Your task to perform on an android device: open a new tab in the chrome app Image 0: 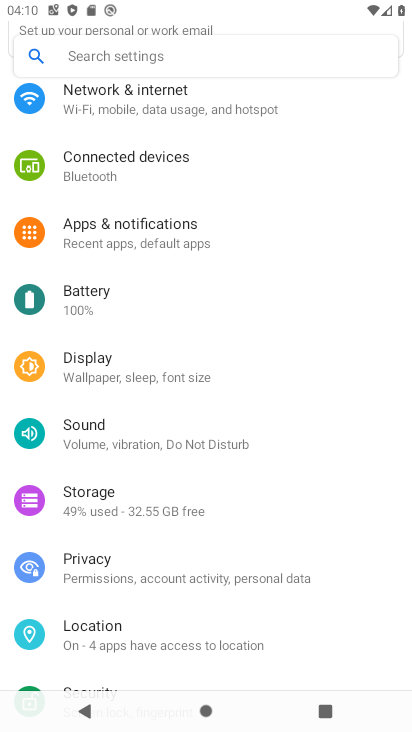
Step 0: press back button
Your task to perform on an android device: open a new tab in the chrome app Image 1: 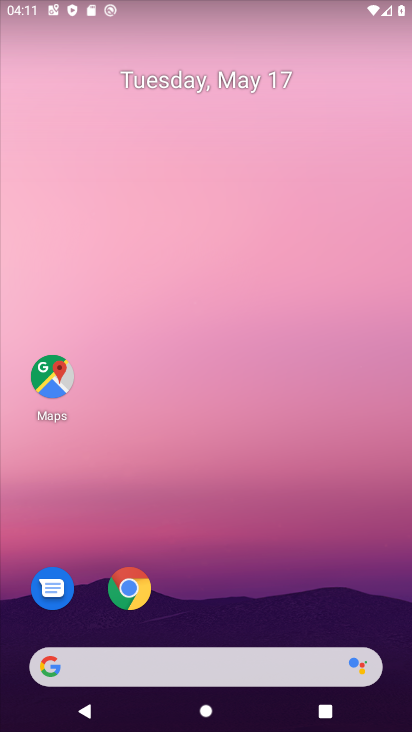
Step 1: click (131, 587)
Your task to perform on an android device: open a new tab in the chrome app Image 2: 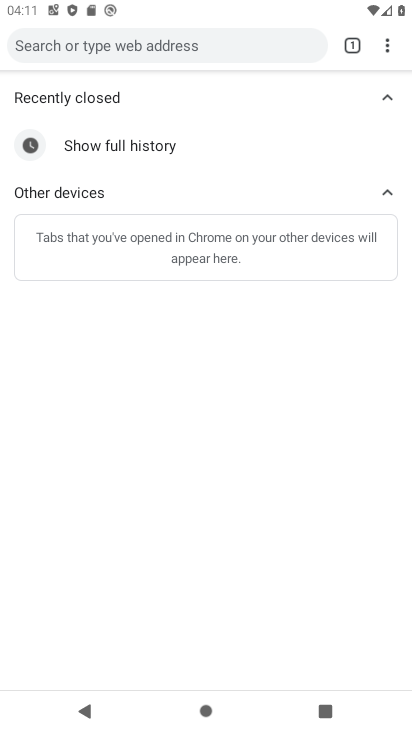
Step 2: click (388, 46)
Your task to perform on an android device: open a new tab in the chrome app Image 3: 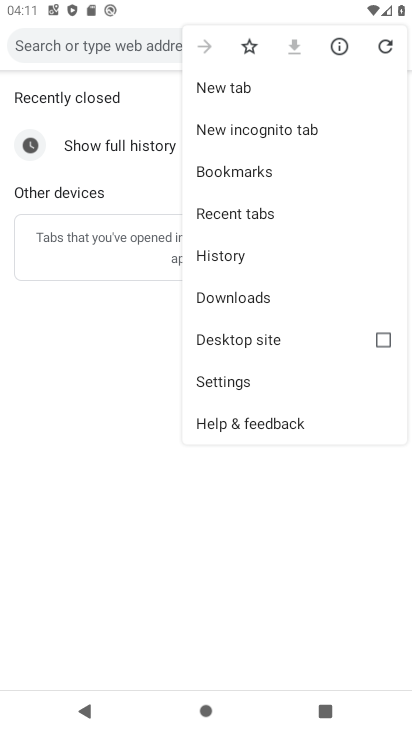
Step 3: click (236, 87)
Your task to perform on an android device: open a new tab in the chrome app Image 4: 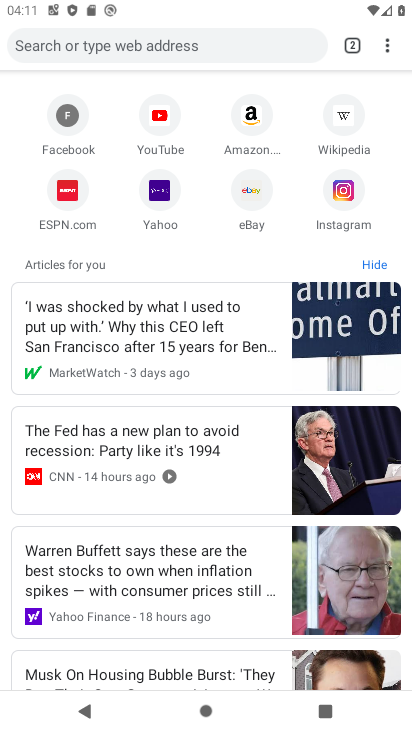
Step 4: task complete